Your task to perform on an android device: Go to sound settings Image 0: 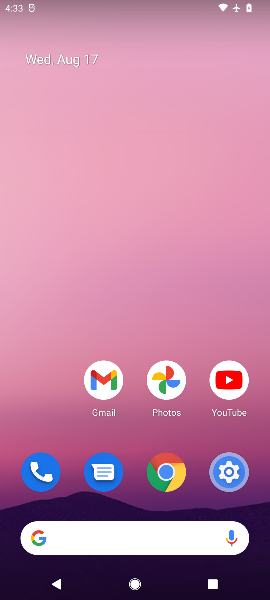
Step 0: drag from (137, 498) to (141, 156)
Your task to perform on an android device: Go to sound settings Image 1: 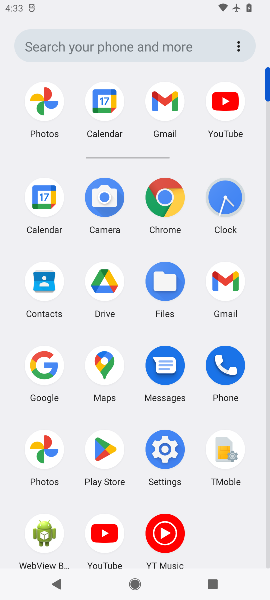
Step 1: click (159, 466)
Your task to perform on an android device: Go to sound settings Image 2: 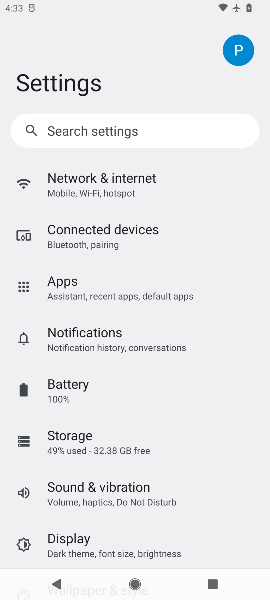
Step 2: click (78, 490)
Your task to perform on an android device: Go to sound settings Image 3: 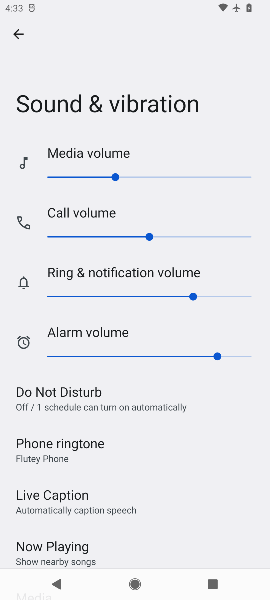
Step 3: task complete